Your task to perform on an android device: Show me productivity apps on the Play Store Image 0: 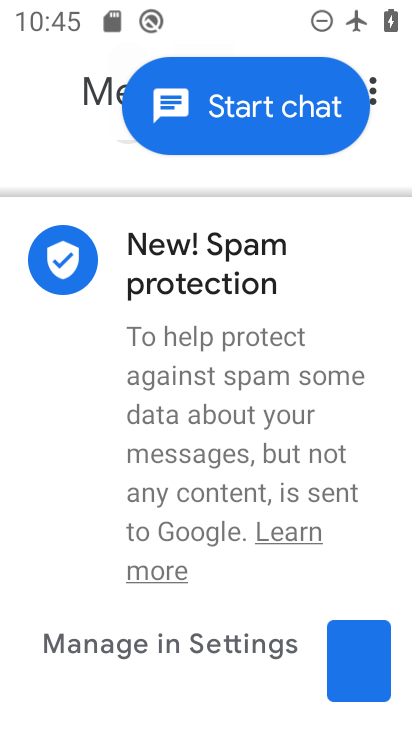
Step 0: press home button
Your task to perform on an android device: Show me productivity apps on the Play Store Image 1: 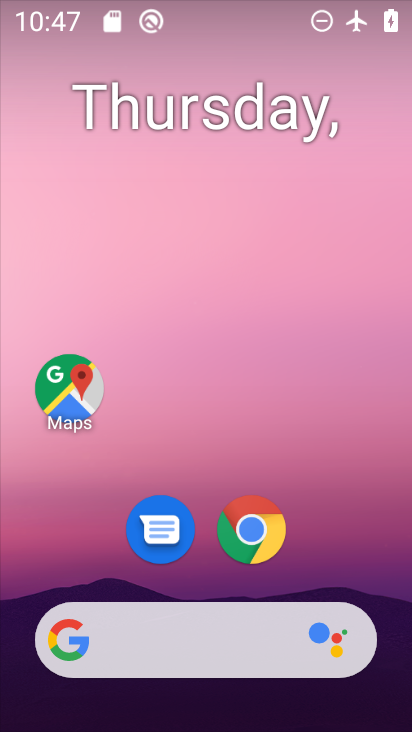
Step 1: drag from (177, 425) to (377, 520)
Your task to perform on an android device: Show me productivity apps on the Play Store Image 2: 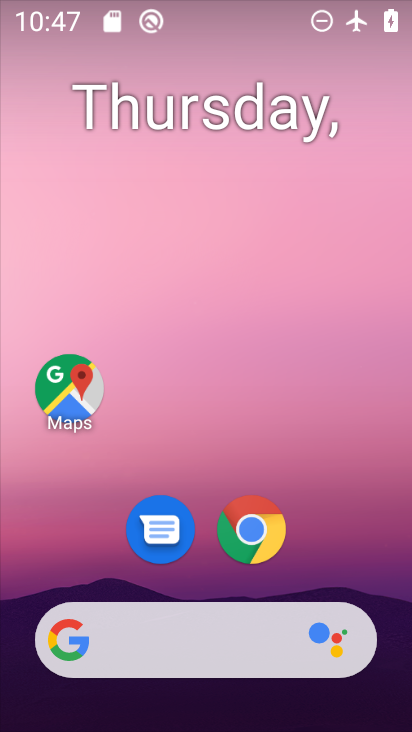
Step 2: drag from (151, 716) to (381, 13)
Your task to perform on an android device: Show me productivity apps on the Play Store Image 3: 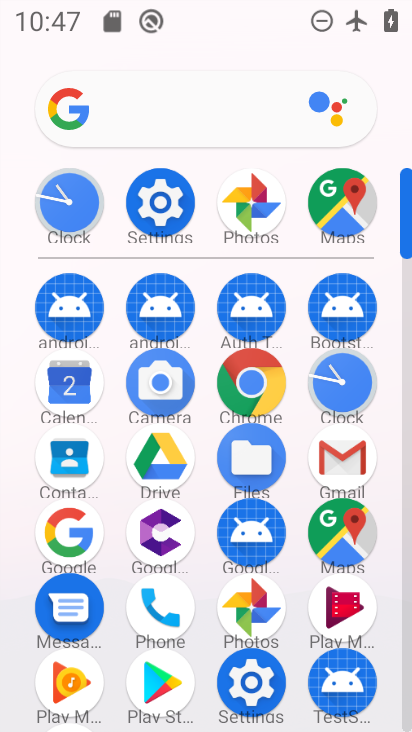
Step 3: click (137, 688)
Your task to perform on an android device: Show me productivity apps on the Play Store Image 4: 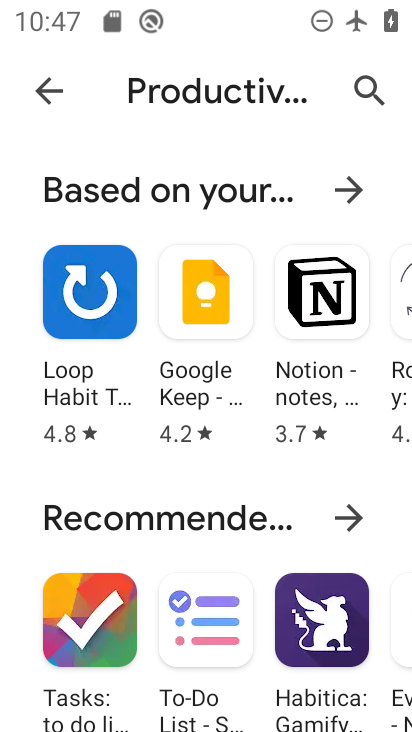
Step 4: task complete